Your task to perform on an android device: Go to Yahoo.com Image 0: 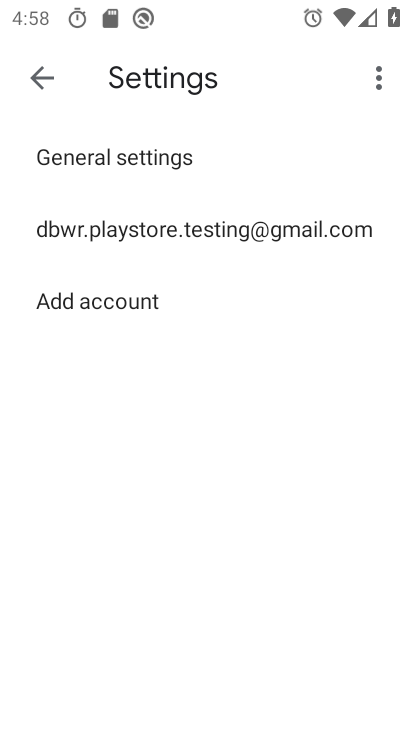
Step 0: press home button
Your task to perform on an android device: Go to Yahoo.com Image 1: 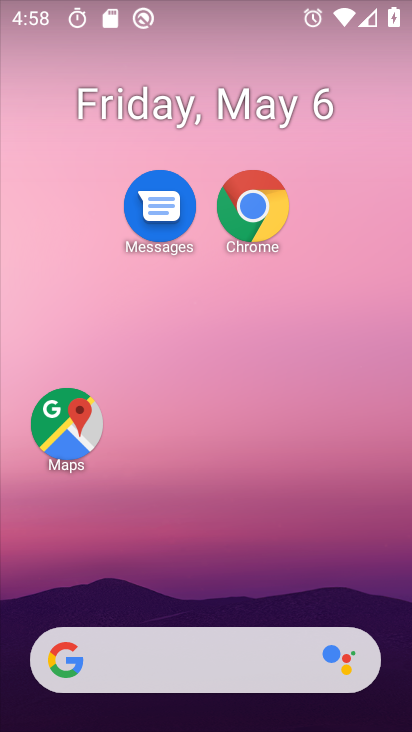
Step 1: drag from (148, 625) to (116, 293)
Your task to perform on an android device: Go to Yahoo.com Image 2: 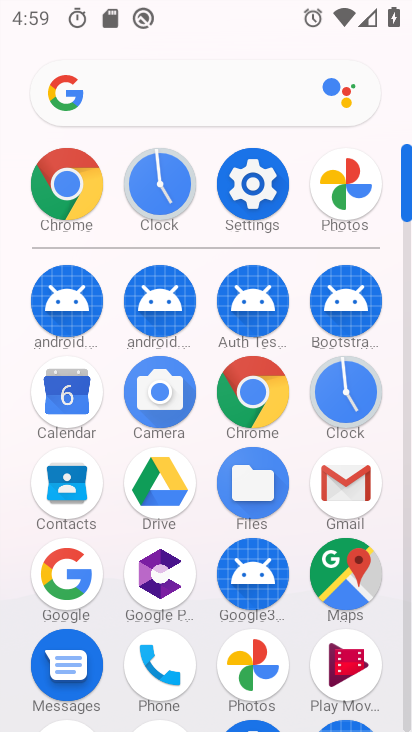
Step 2: drag from (124, 662) to (92, 323)
Your task to perform on an android device: Go to Yahoo.com Image 3: 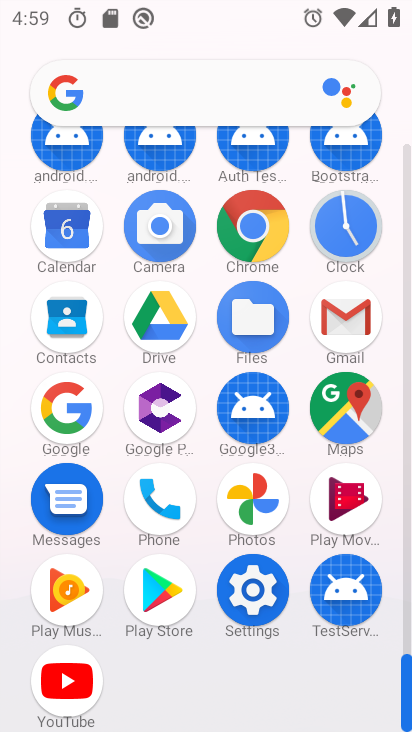
Step 3: click (241, 234)
Your task to perform on an android device: Go to Yahoo.com Image 4: 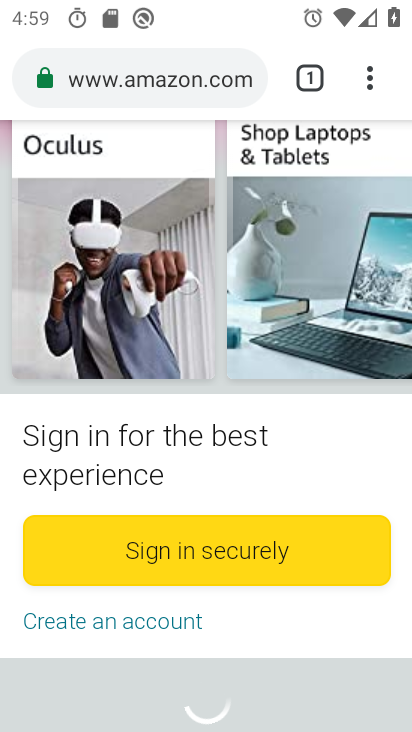
Step 4: click (308, 79)
Your task to perform on an android device: Go to Yahoo.com Image 5: 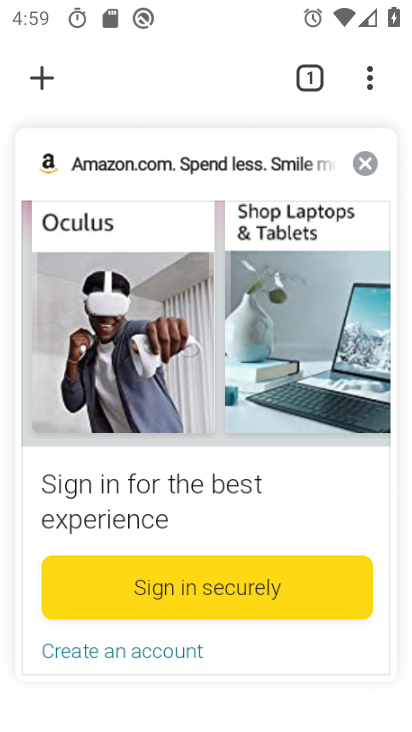
Step 5: click (364, 166)
Your task to perform on an android device: Go to Yahoo.com Image 6: 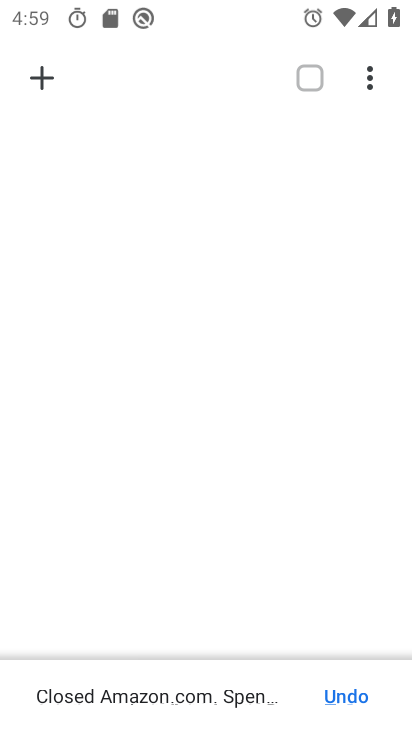
Step 6: click (37, 69)
Your task to perform on an android device: Go to Yahoo.com Image 7: 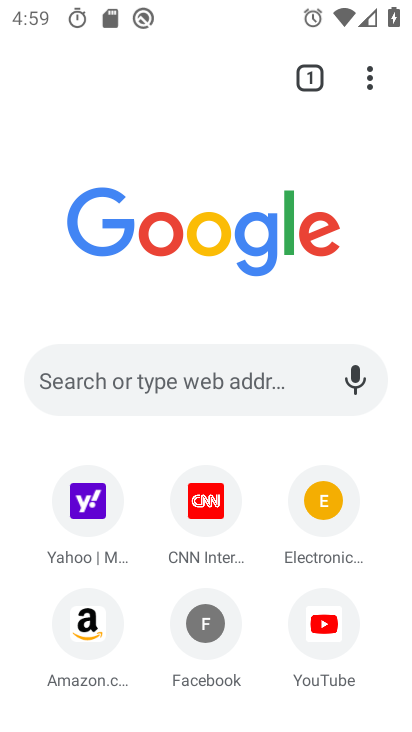
Step 7: click (74, 507)
Your task to perform on an android device: Go to Yahoo.com Image 8: 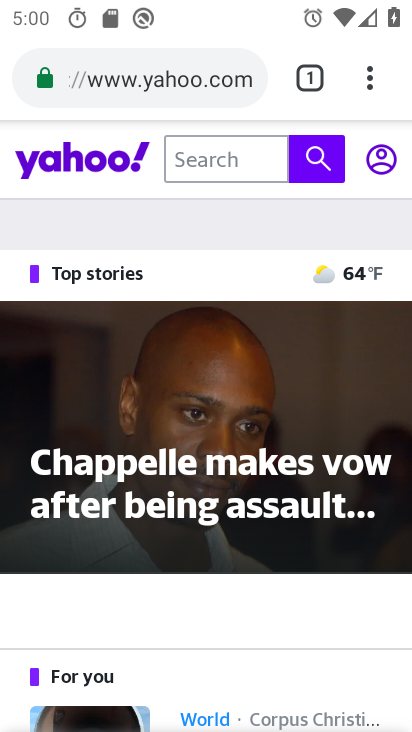
Step 8: task complete